Your task to perform on an android device: Open privacy settings Image 0: 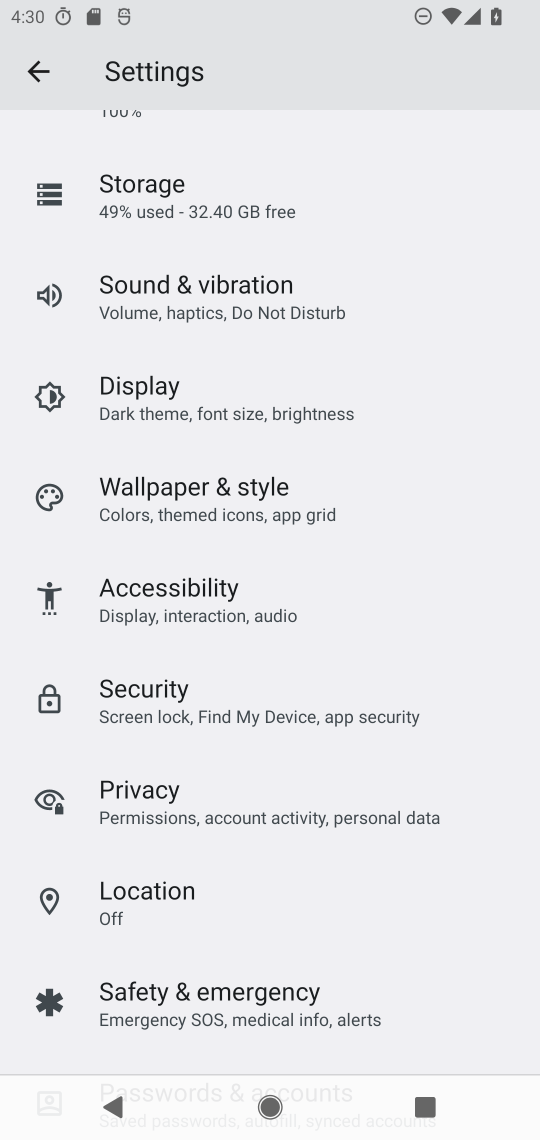
Step 0: click (182, 769)
Your task to perform on an android device: Open privacy settings Image 1: 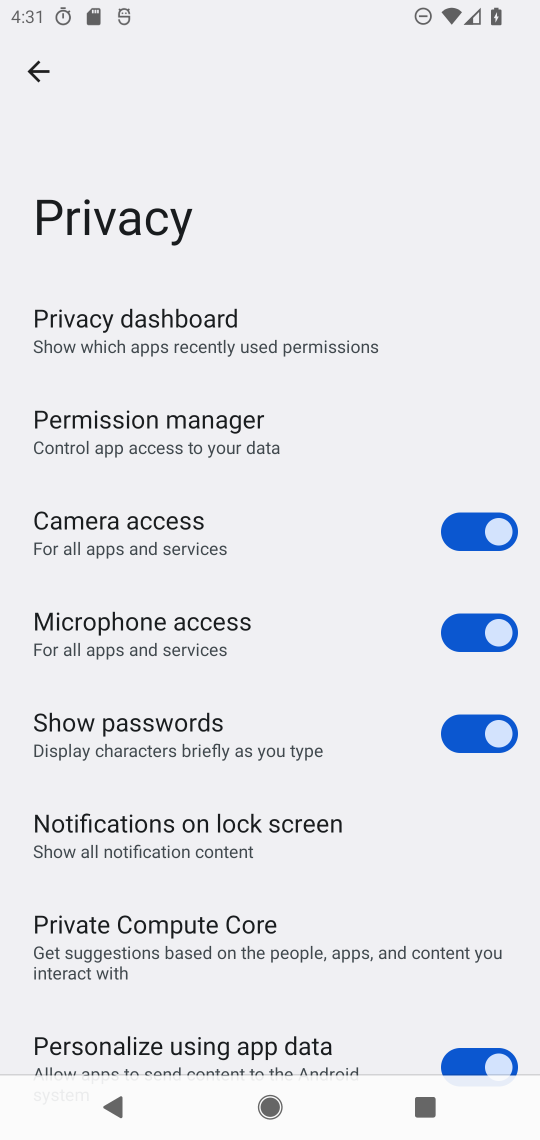
Step 1: task complete